Your task to perform on an android device: toggle show notifications on the lock screen Image 0: 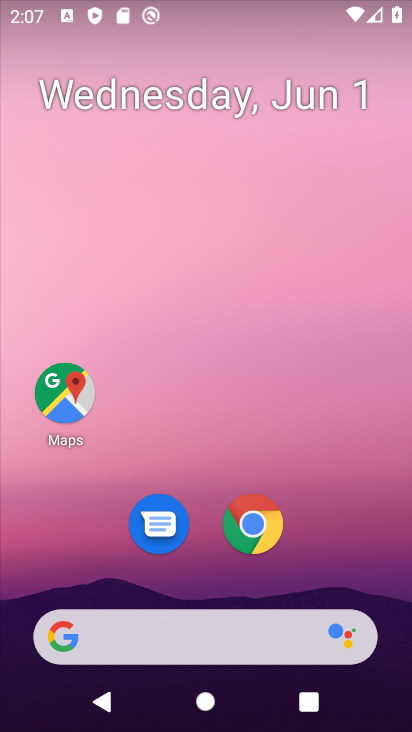
Step 0: drag from (316, 547) to (325, 58)
Your task to perform on an android device: toggle show notifications on the lock screen Image 1: 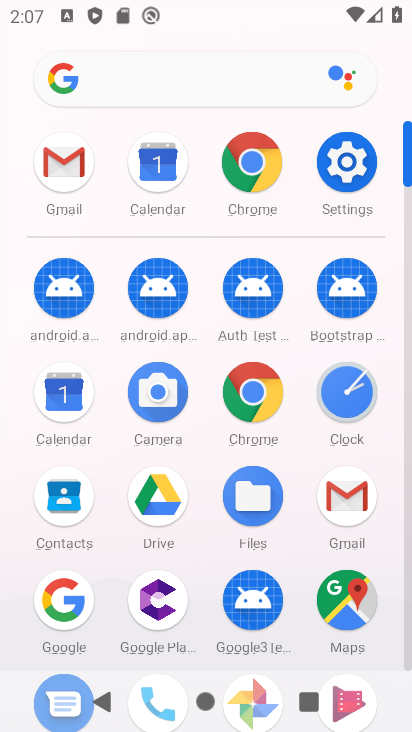
Step 1: click (337, 161)
Your task to perform on an android device: toggle show notifications on the lock screen Image 2: 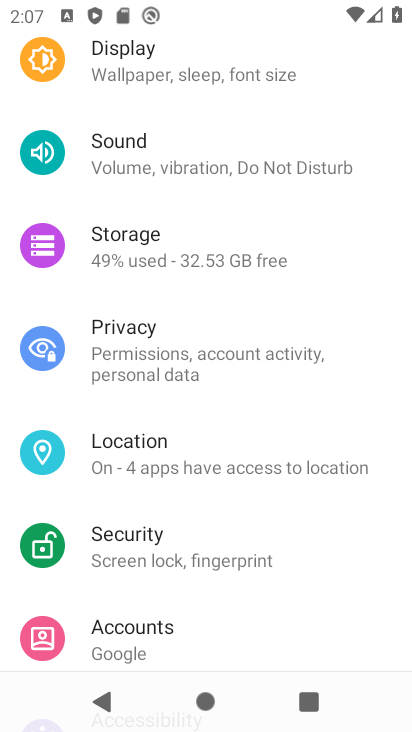
Step 2: drag from (215, 130) to (252, 593)
Your task to perform on an android device: toggle show notifications on the lock screen Image 3: 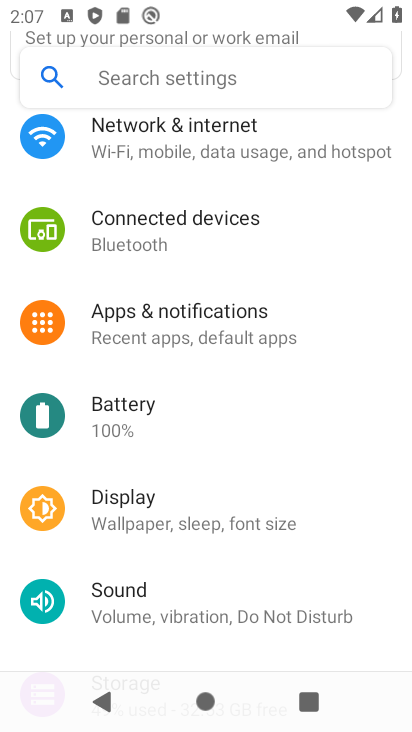
Step 3: click (232, 316)
Your task to perform on an android device: toggle show notifications on the lock screen Image 4: 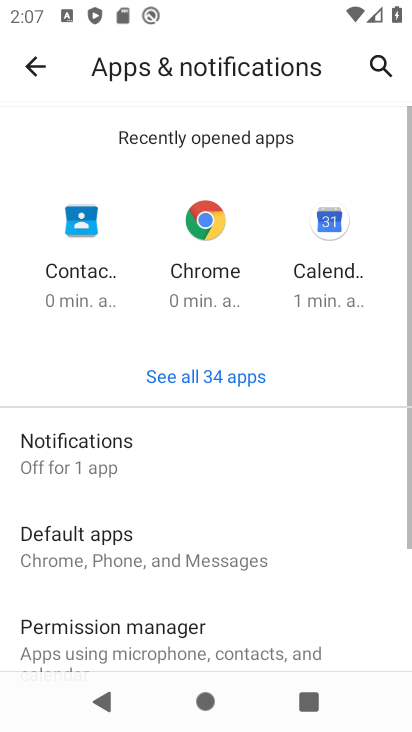
Step 4: click (213, 449)
Your task to perform on an android device: toggle show notifications on the lock screen Image 5: 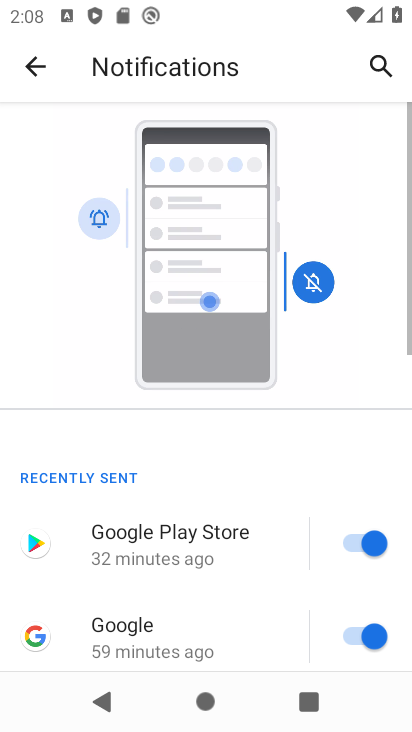
Step 5: drag from (260, 581) to (278, 51)
Your task to perform on an android device: toggle show notifications on the lock screen Image 6: 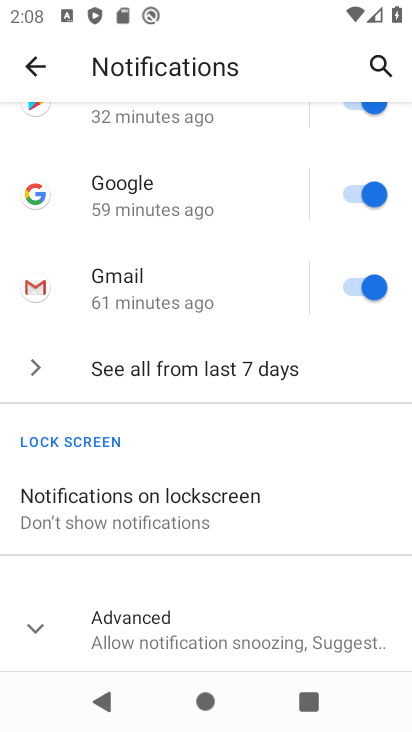
Step 6: click (203, 510)
Your task to perform on an android device: toggle show notifications on the lock screen Image 7: 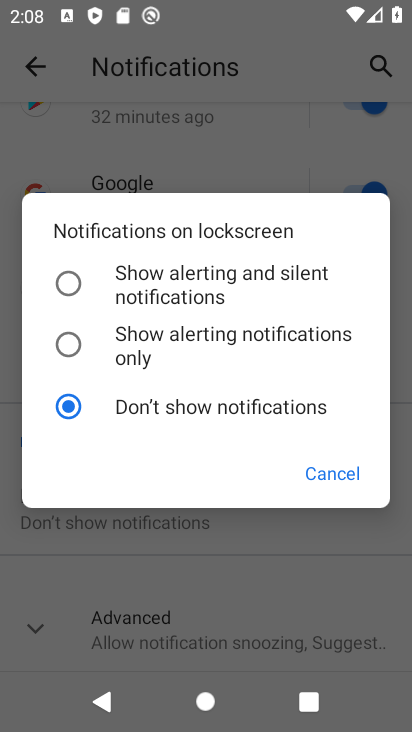
Step 7: click (66, 275)
Your task to perform on an android device: toggle show notifications on the lock screen Image 8: 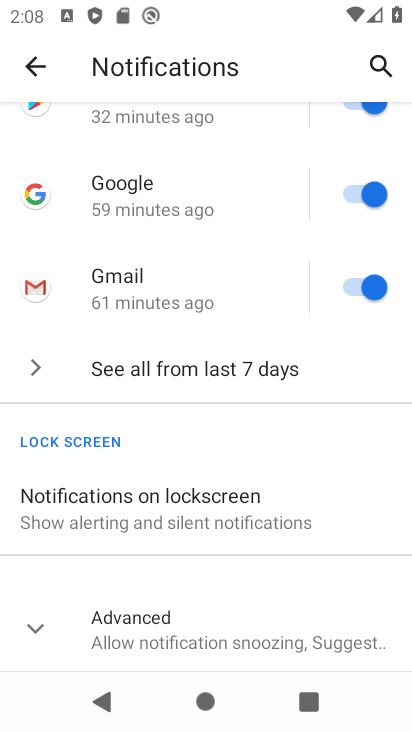
Step 8: task complete